Your task to perform on an android device: Open CNN.com Image 0: 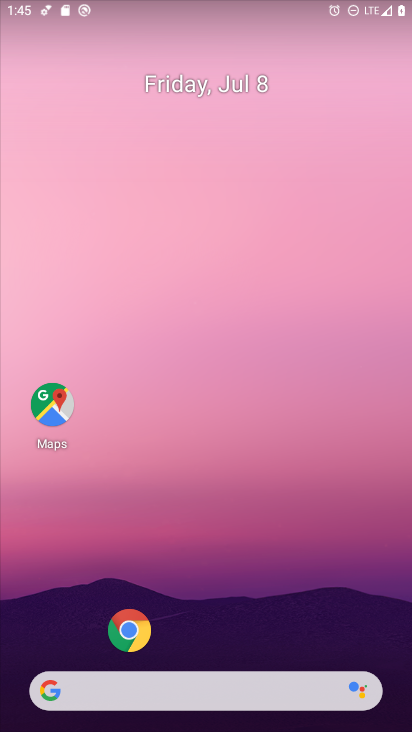
Step 0: drag from (332, 582) to (357, 46)
Your task to perform on an android device: Open CNN.com Image 1: 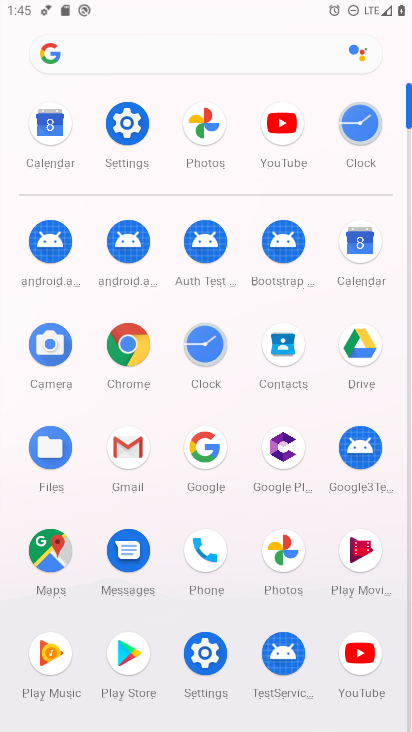
Step 1: click (131, 337)
Your task to perform on an android device: Open CNN.com Image 2: 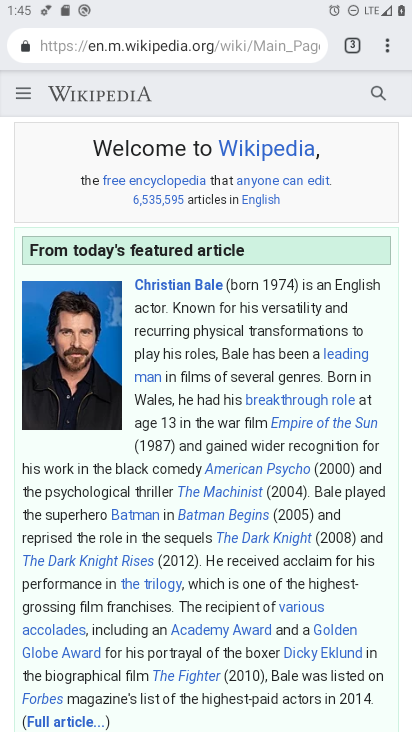
Step 2: click (286, 50)
Your task to perform on an android device: Open CNN.com Image 3: 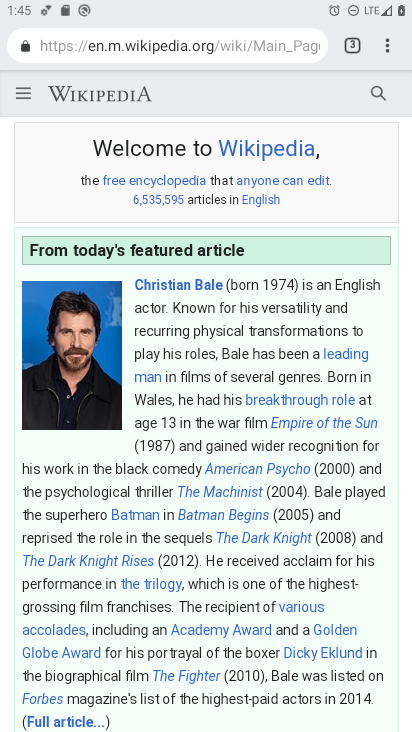
Step 3: click (286, 50)
Your task to perform on an android device: Open CNN.com Image 4: 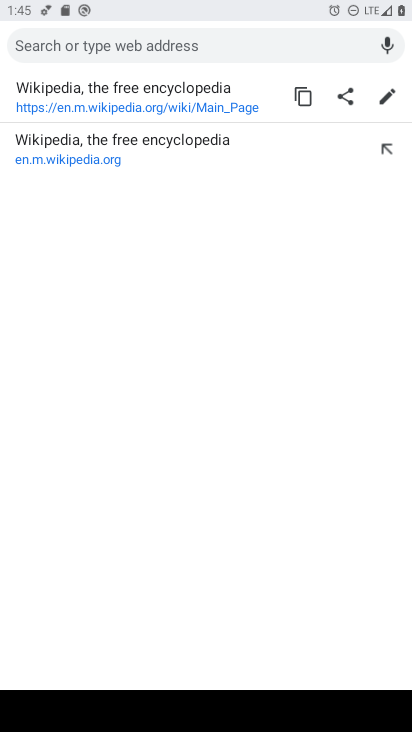
Step 4: type "cnn.com"
Your task to perform on an android device: Open CNN.com Image 5: 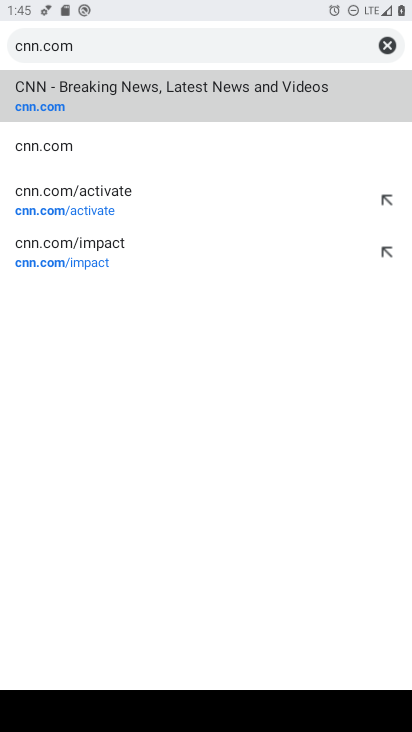
Step 5: click (168, 95)
Your task to perform on an android device: Open CNN.com Image 6: 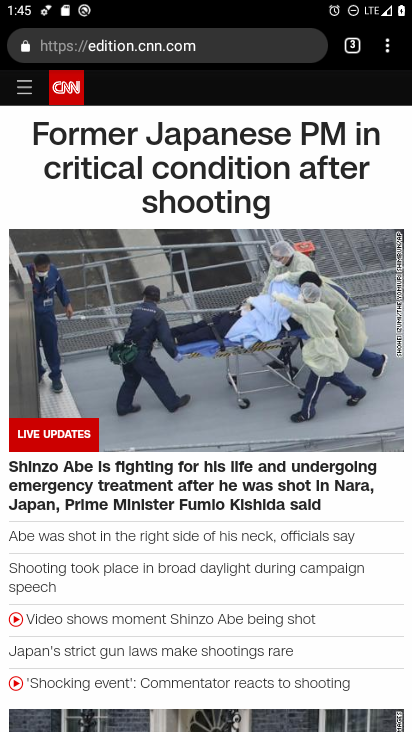
Step 6: task complete